Your task to perform on an android device: Open calendar and show me the second week of next month Image 0: 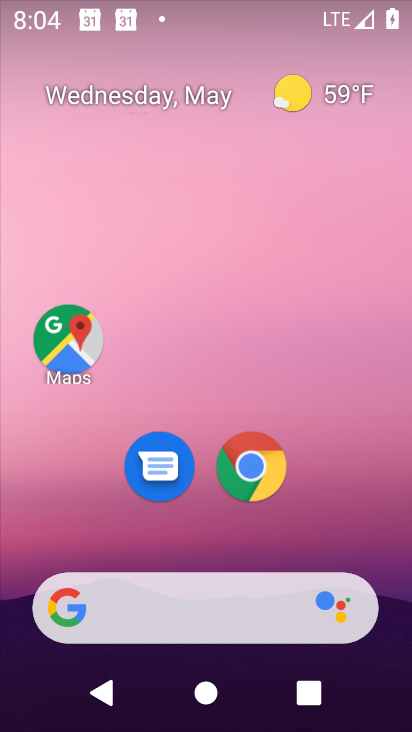
Step 0: drag from (338, 493) to (293, 251)
Your task to perform on an android device: Open calendar and show me the second week of next month Image 1: 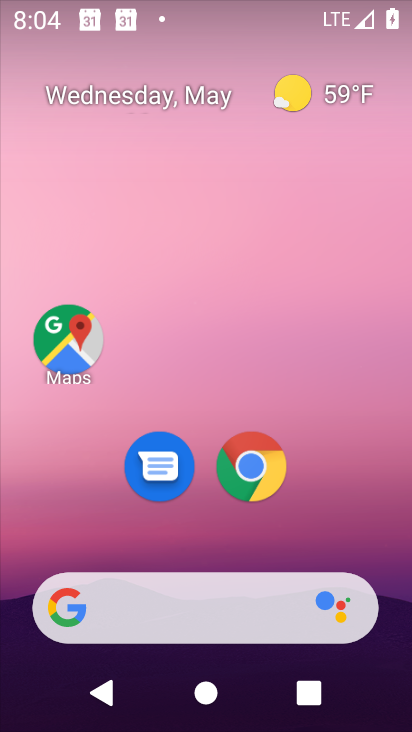
Step 1: drag from (296, 532) to (346, 156)
Your task to perform on an android device: Open calendar and show me the second week of next month Image 2: 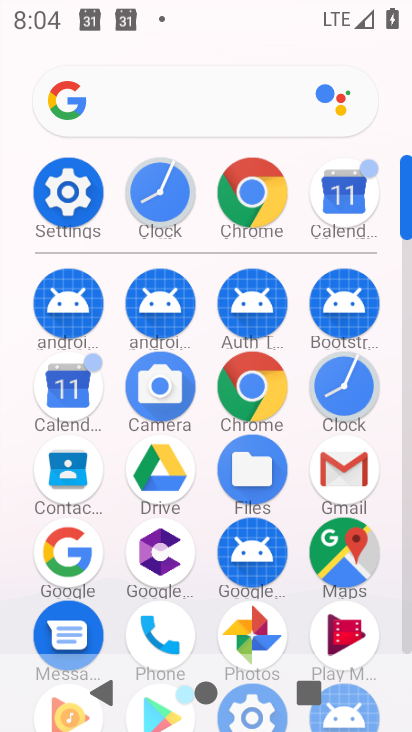
Step 2: click (332, 189)
Your task to perform on an android device: Open calendar and show me the second week of next month Image 3: 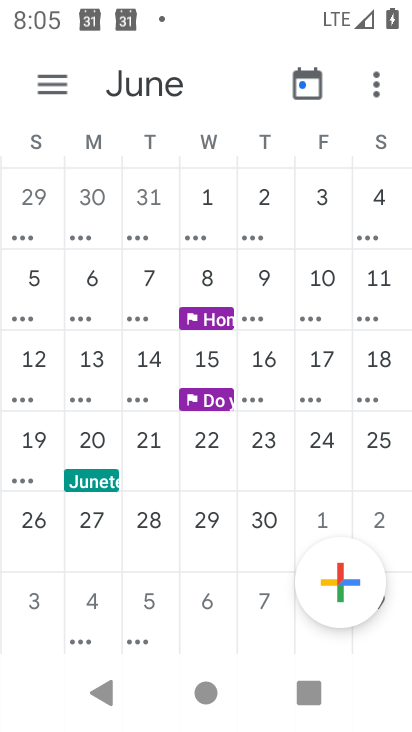
Step 3: task complete